Your task to perform on an android device: turn off improve location accuracy Image 0: 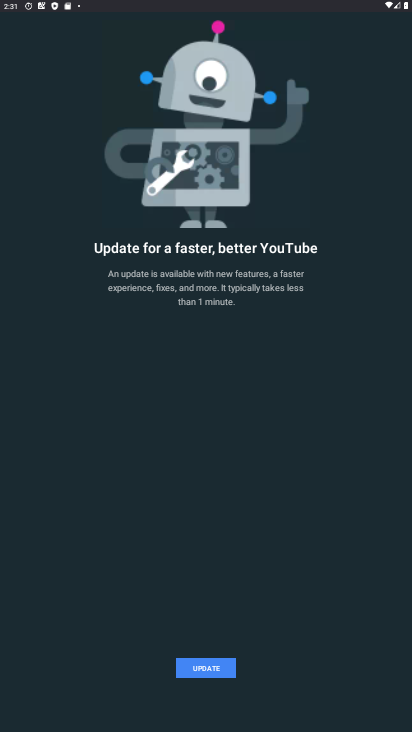
Step 0: press home button
Your task to perform on an android device: turn off improve location accuracy Image 1: 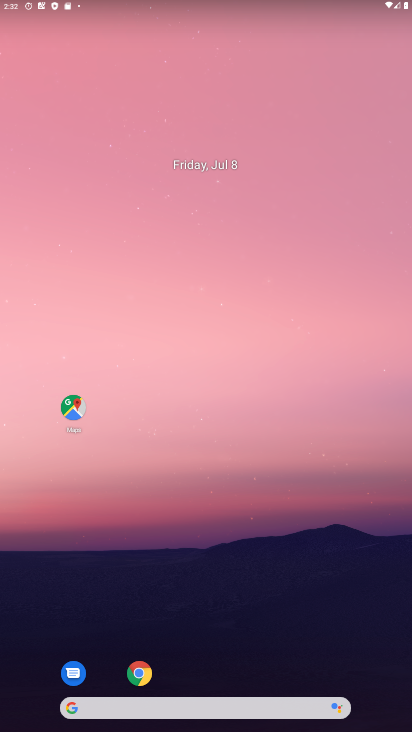
Step 1: drag from (186, 684) to (335, 242)
Your task to perform on an android device: turn off improve location accuracy Image 2: 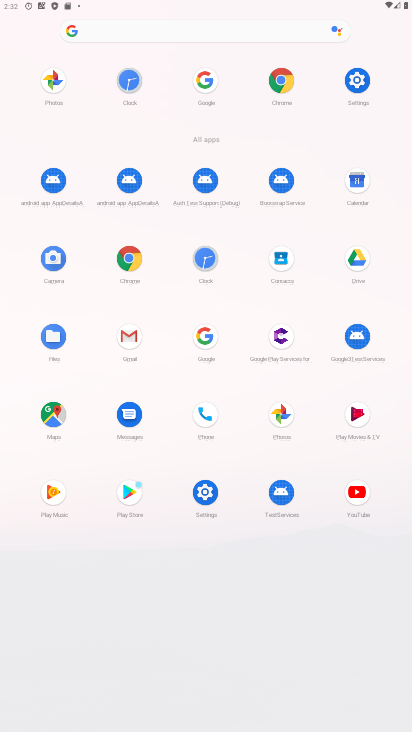
Step 2: click (353, 91)
Your task to perform on an android device: turn off improve location accuracy Image 3: 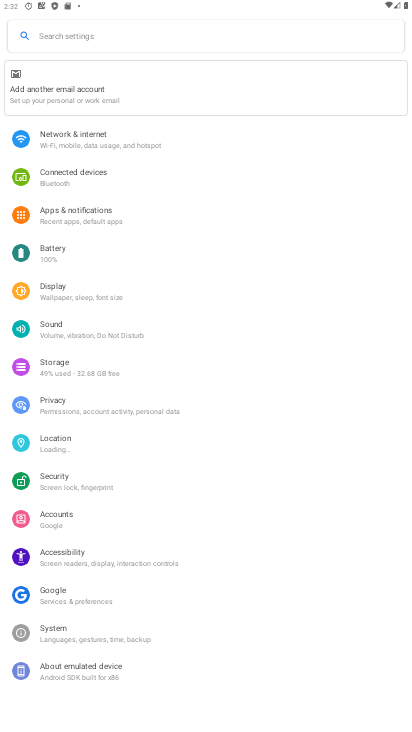
Step 3: click (68, 439)
Your task to perform on an android device: turn off improve location accuracy Image 4: 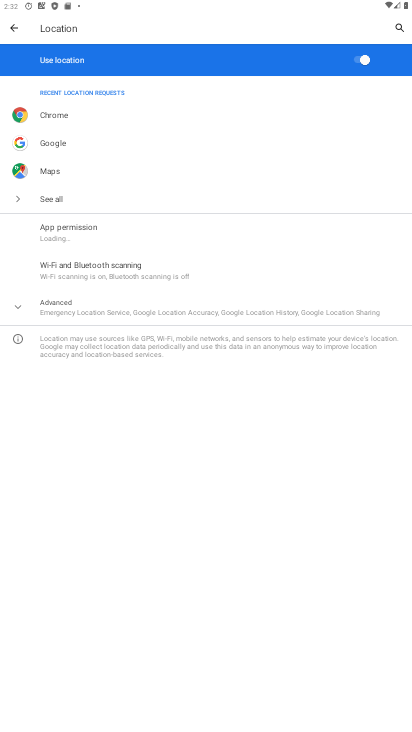
Step 4: click (73, 304)
Your task to perform on an android device: turn off improve location accuracy Image 5: 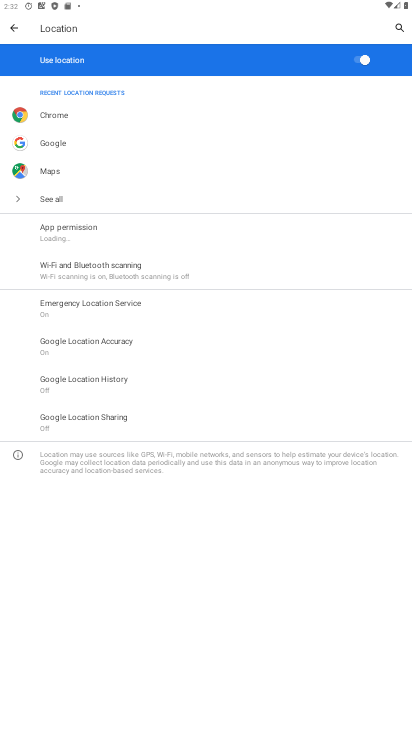
Step 5: click (89, 341)
Your task to perform on an android device: turn off improve location accuracy Image 6: 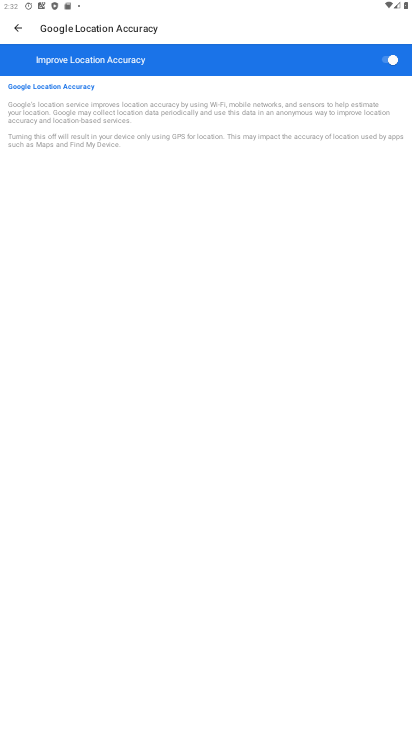
Step 6: click (387, 57)
Your task to perform on an android device: turn off improve location accuracy Image 7: 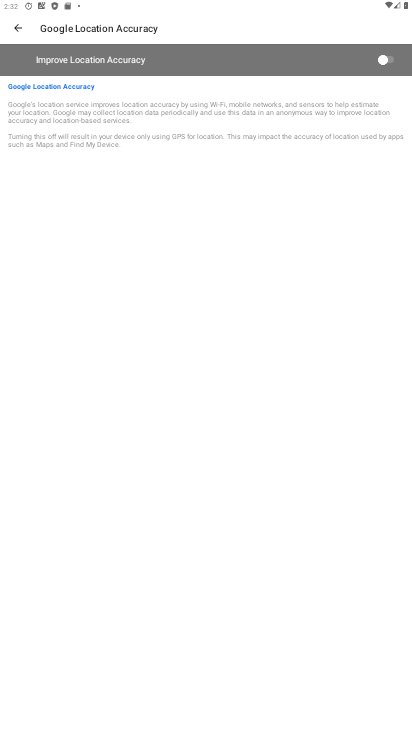
Step 7: task complete